Your task to perform on an android device: turn off improve location accuracy Image 0: 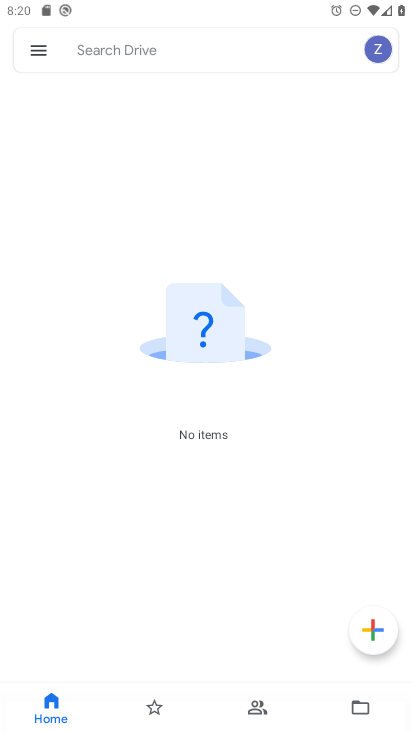
Step 0: press home button
Your task to perform on an android device: turn off improve location accuracy Image 1: 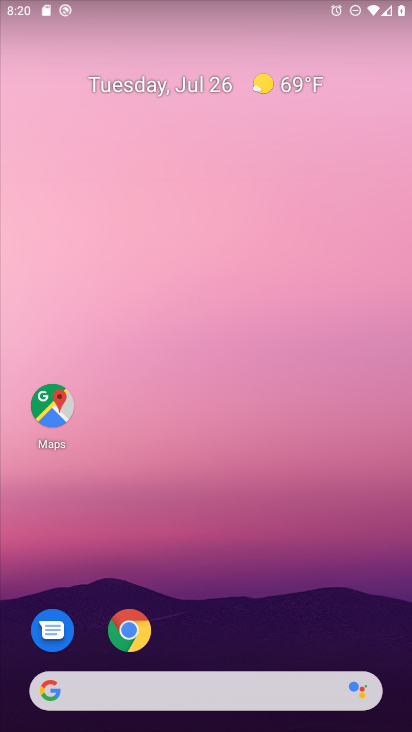
Step 1: drag from (265, 588) to (281, 154)
Your task to perform on an android device: turn off improve location accuracy Image 2: 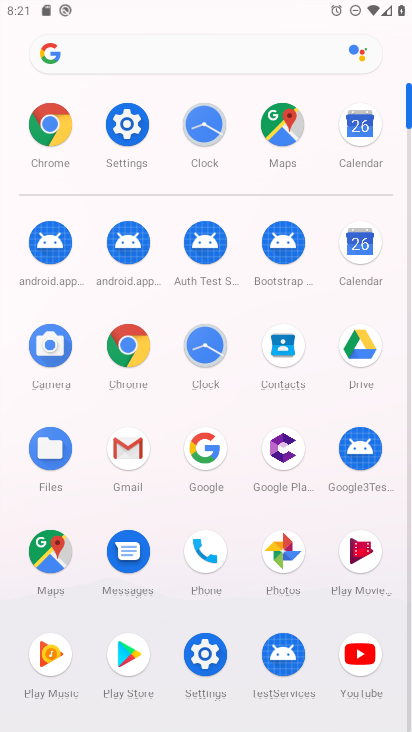
Step 2: click (214, 653)
Your task to perform on an android device: turn off improve location accuracy Image 3: 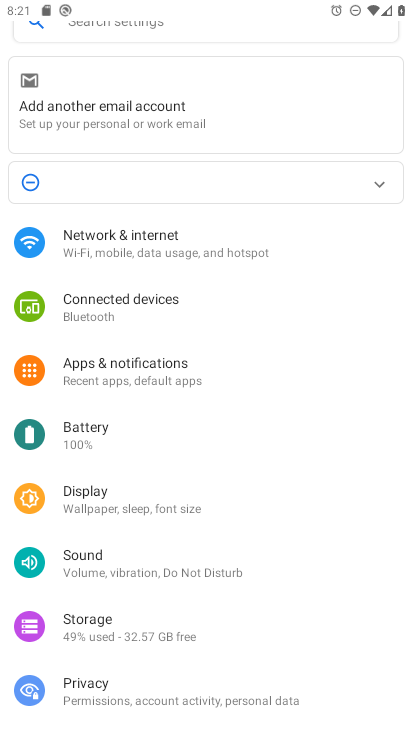
Step 3: drag from (137, 634) to (137, 274)
Your task to perform on an android device: turn off improve location accuracy Image 4: 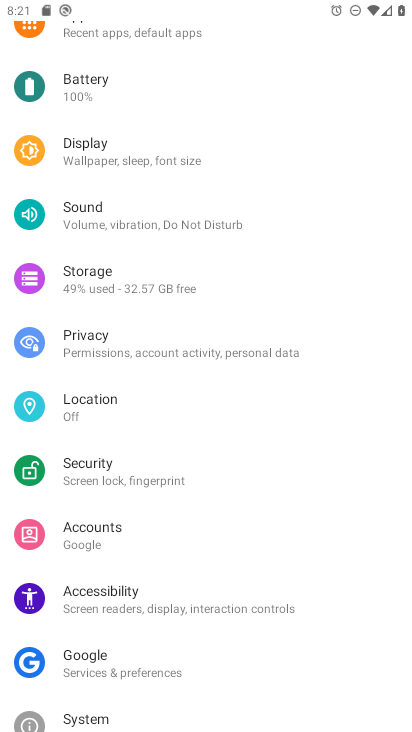
Step 4: click (126, 406)
Your task to perform on an android device: turn off improve location accuracy Image 5: 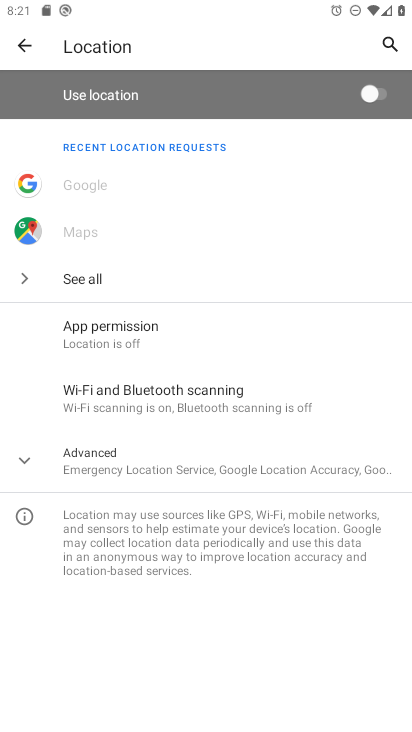
Step 5: task complete